Your task to perform on an android device: Open ESPN.com Image 0: 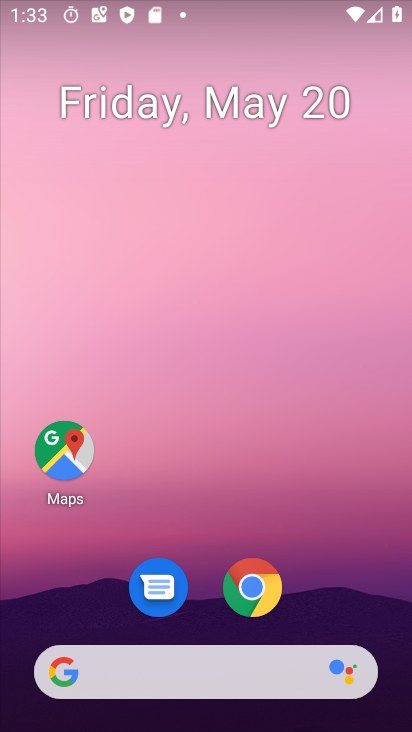
Step 0: click (255, 591)
Your task to perform on an android device: Open ESPN.com Image 1: 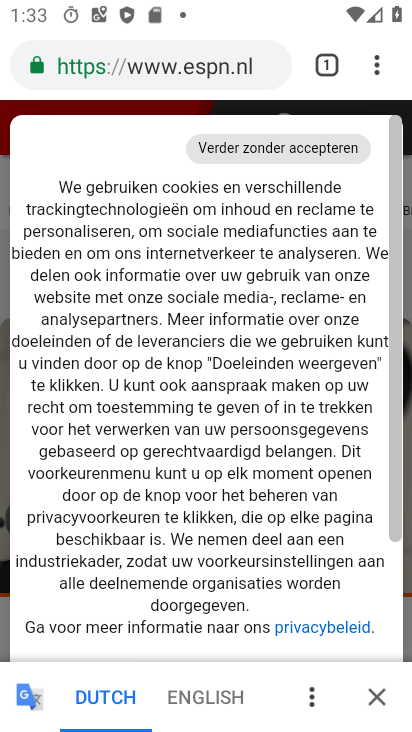
Step 1: task complete